Your task to perform on an android device: change the clock display to show seconds Image 0: 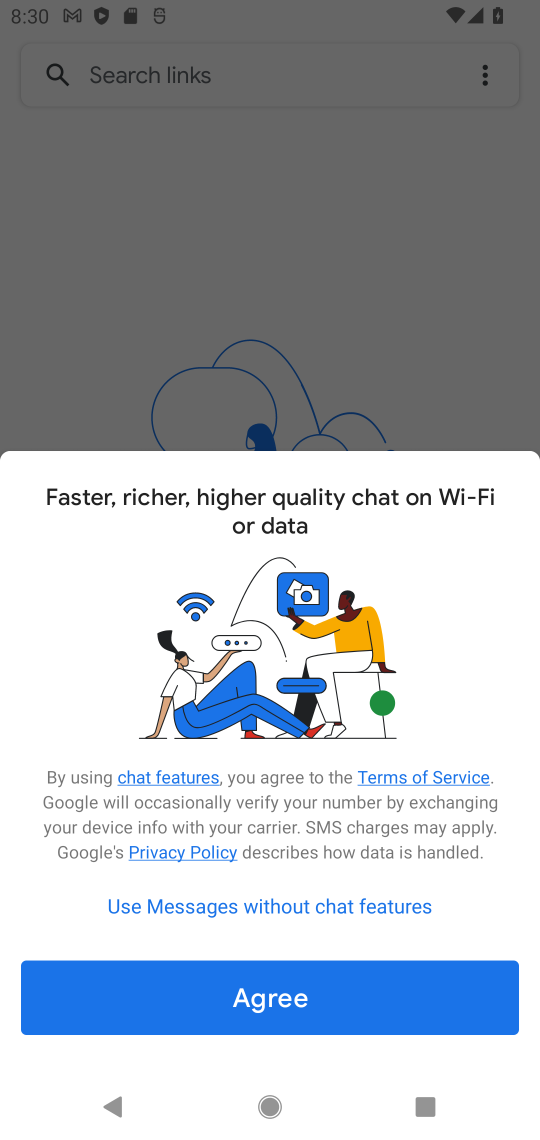
Step 0: press home button
Your task to perform on an android device: change the clock display to show seconds Image 1: 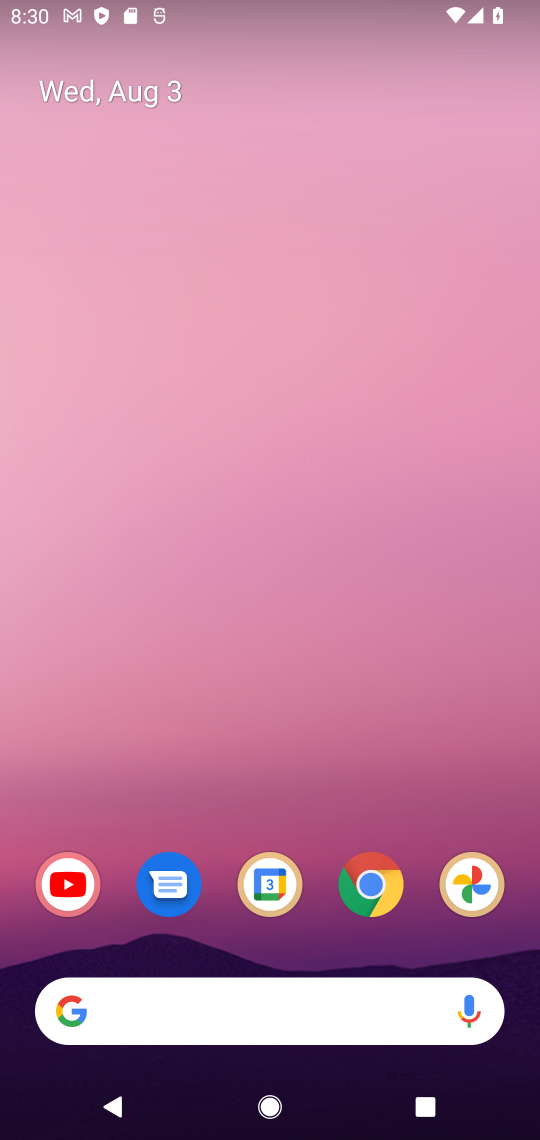
Step 1: drag from (171, 670) to (223, 314)
Your task to perform on an android device: change the clock display to show seconds Image 2: 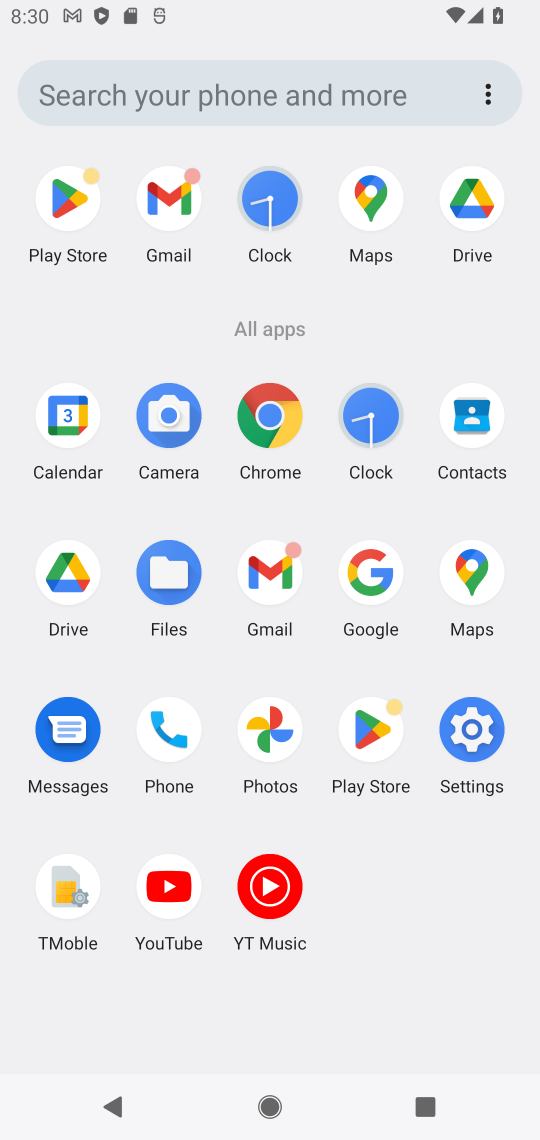
Step 2: click (371, 433)
Your task to perform on an android device: change the clock display to show seconds Image 3: 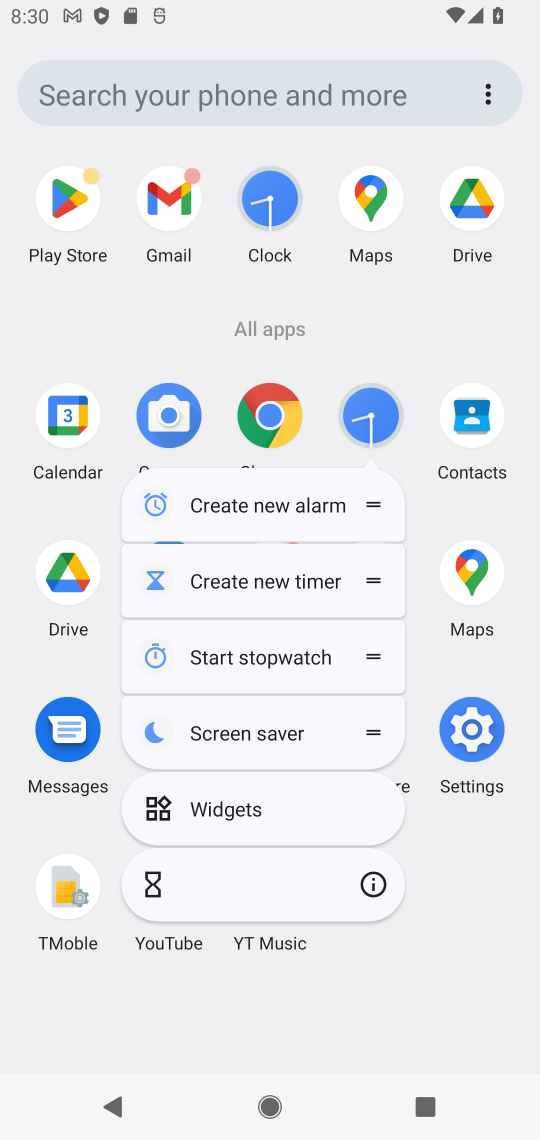
Step 3: click (358, 430)
Your task to perform on an android device: change the clock display to show seconds Image 4: 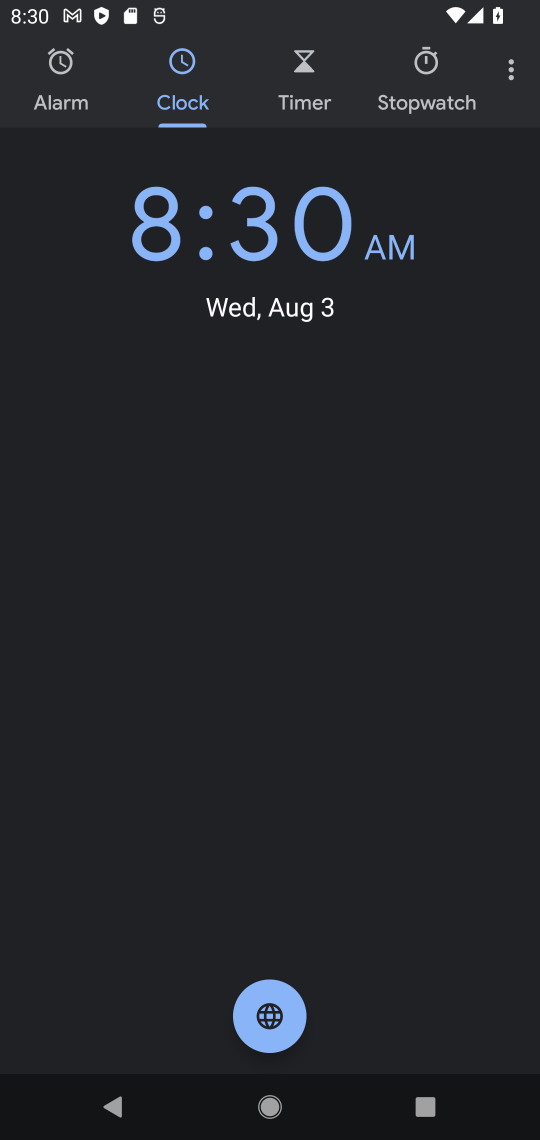
Step 4: click (515, 60)
Your task to perform on an android device: change the clock display to show seconds Image 5: 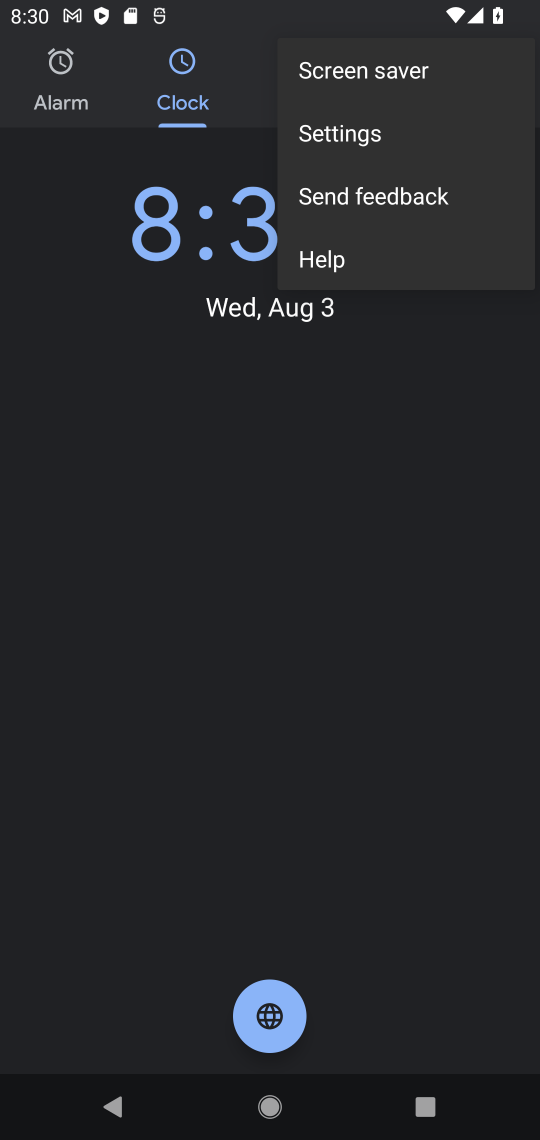
Step 5: click (361, 114)
Your task to perform on an android device: change the clock display to show seconds Image 6: 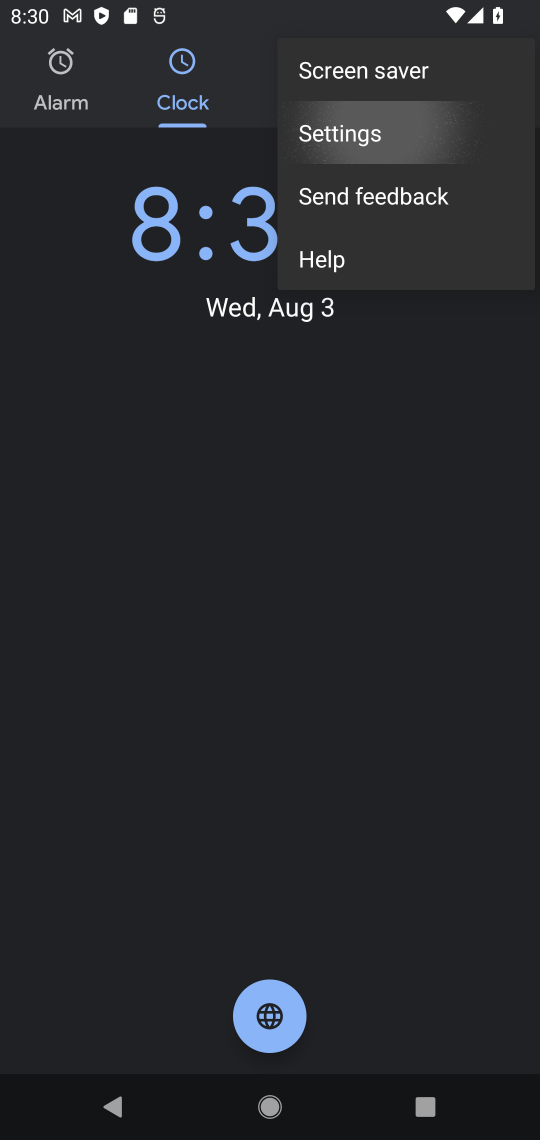
Step 6: click (358, 127)
Your task to perform on an android device: change the clock display to show seconds Image 7: 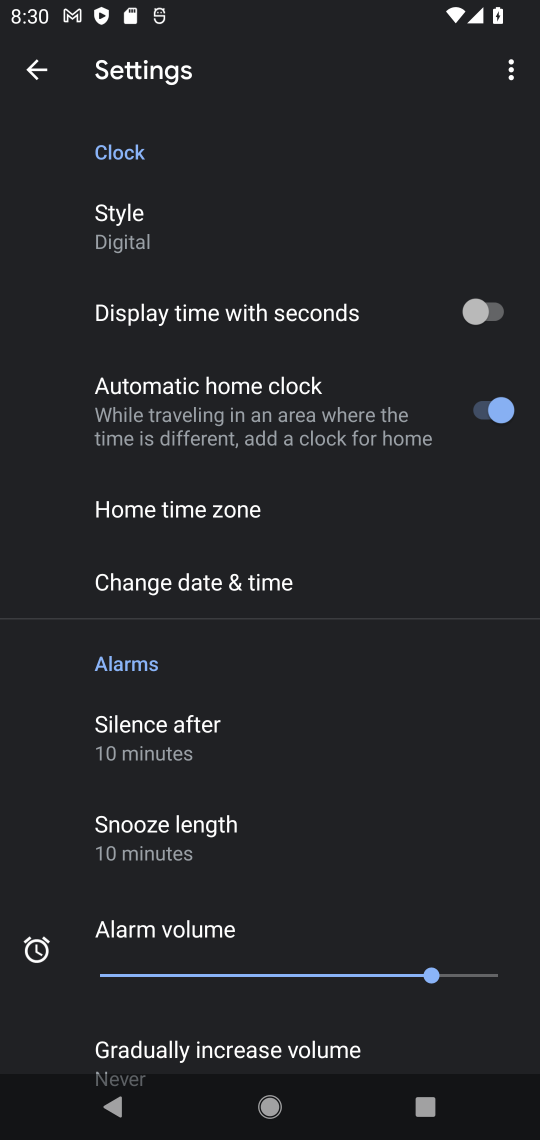
Step 7: click (484, 313)
Your task to perform on an android device: change the clock display to show seconds Image 8: 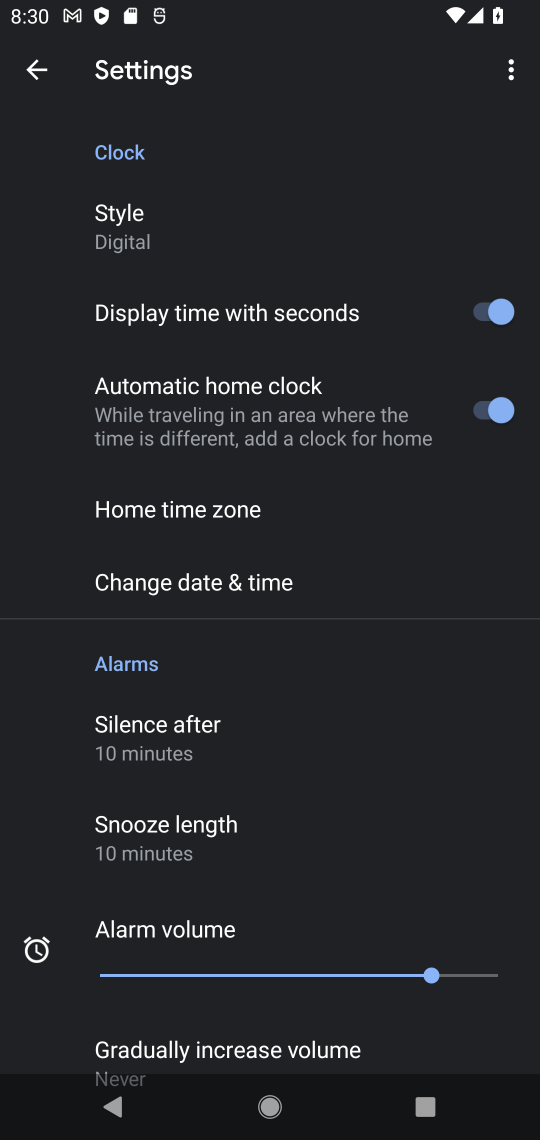
Step 8: task complete